Your task to perform on an android device: uninstall "Messages" Image 0: 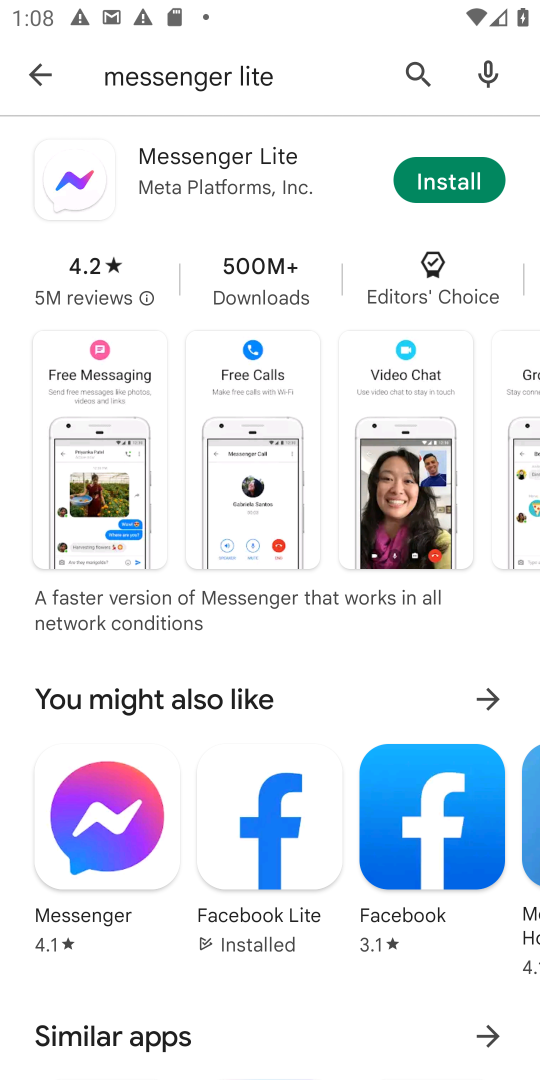
Step 0: click (35, 84)
Your task to perform on an android device: uninstall "Messages" Image 1: 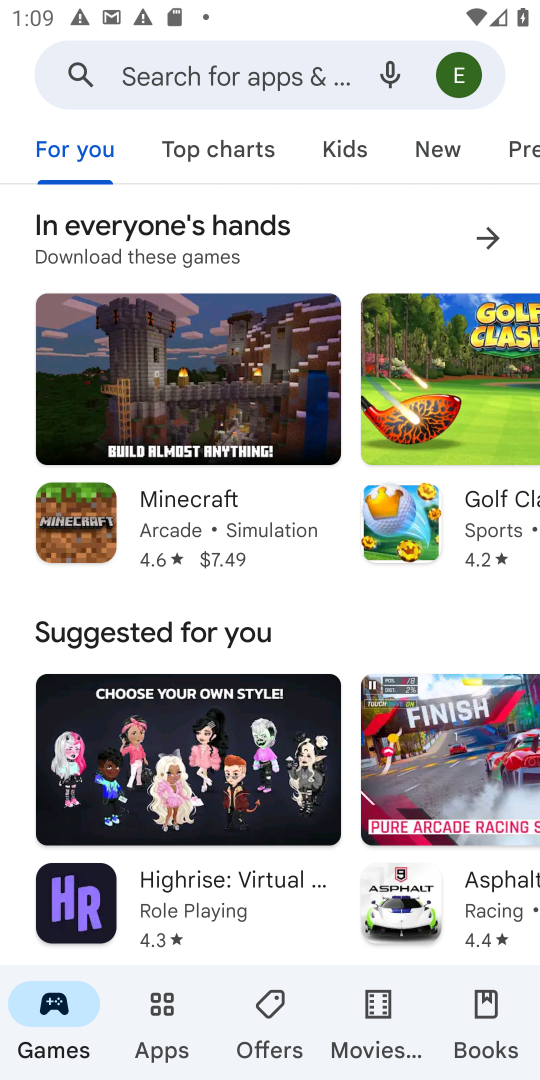
Step 1: click (269, 76)
Your task to perform on an android device: uninstall "Messages" Image 2: 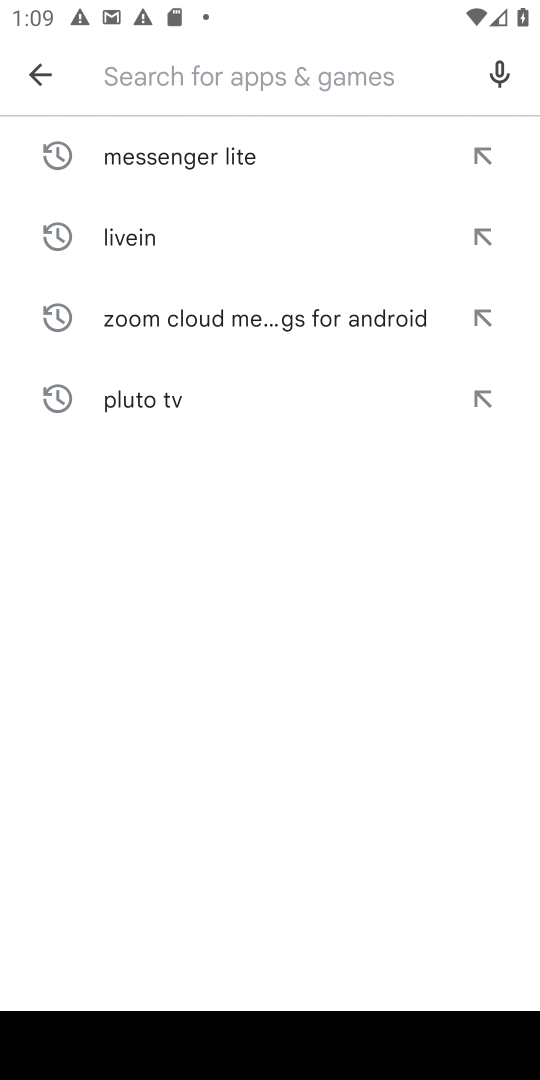
Step 2: type "Messages"
Your task to perform on an android device: uninstall "Messages" Image 3: 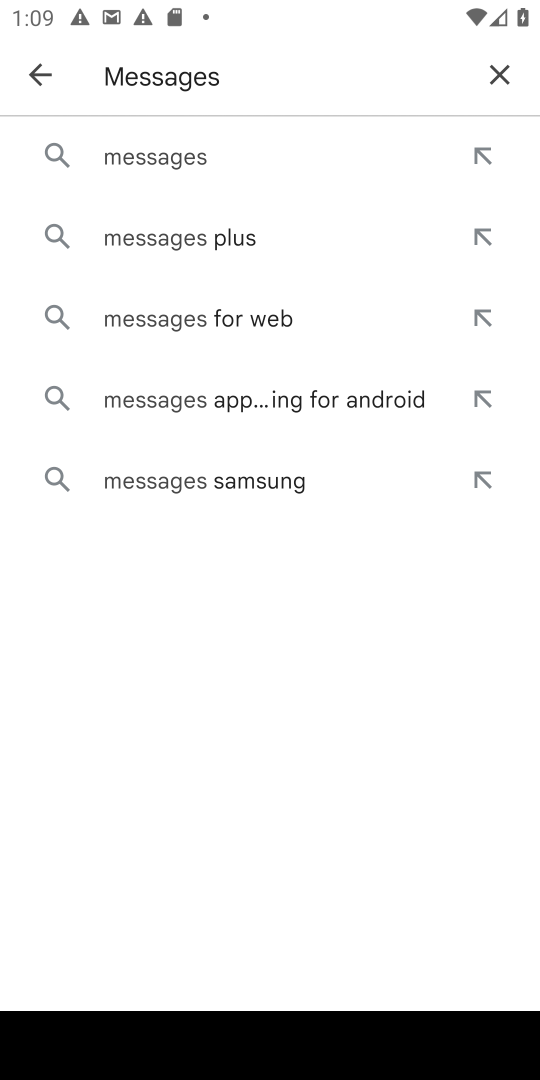
Step 3: click (136, 146)
Your task to perform on an android device: uninstall "Messages" Image 4: 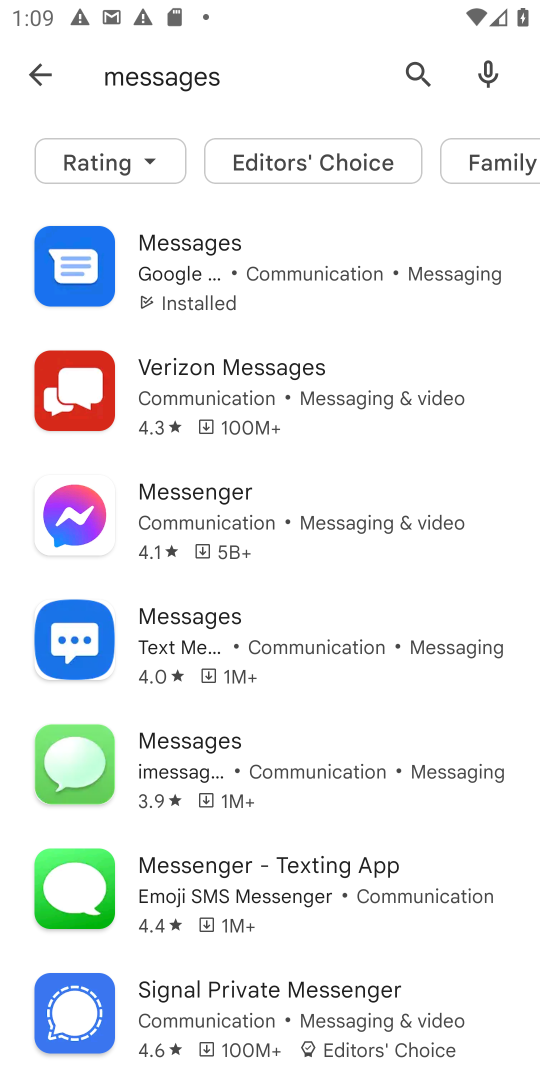
Step 4: click (177, 273)
Your task to perform on an android device: uninstall "Messages" Image 5: 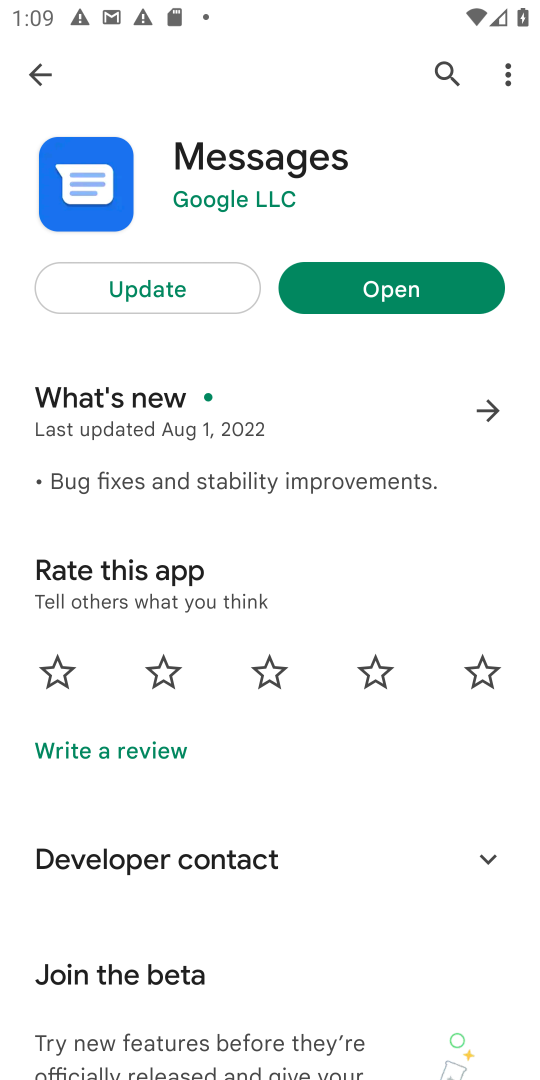
Step 5: click (157, 290)
Your task to perform on an android device: uninstall "Messages" Image 6: 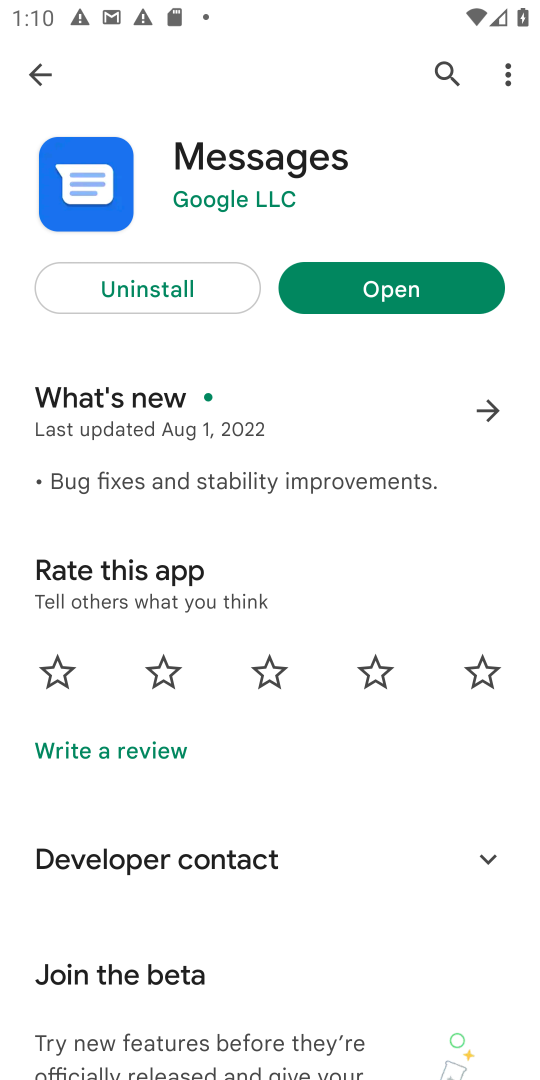
Step 6: click (156, 282)
Your task to perform on an android device: uninstall "Messages" Image 7: 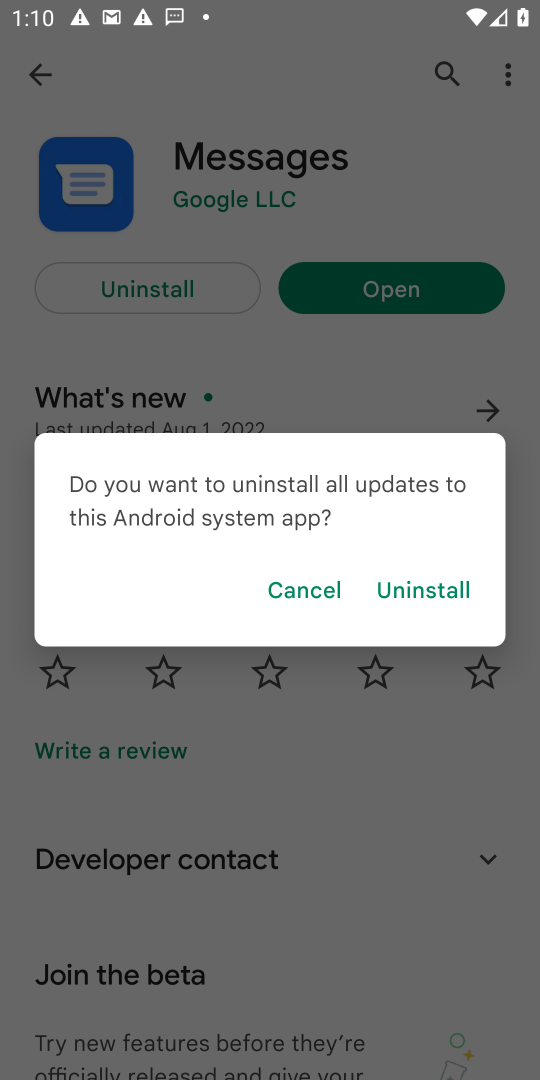
Step 7: click (421, 593)
Your task to perform on an android device: uninstall "Messages" Image 8: 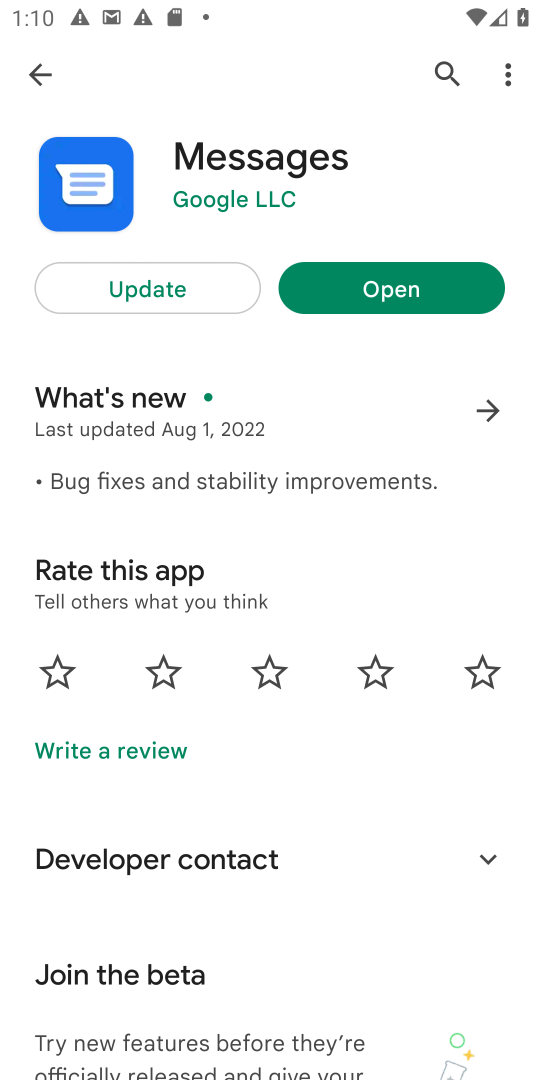
Step 8: task complete